Your task to perform on an android device: Do I have any events tomorrow? Image 0: 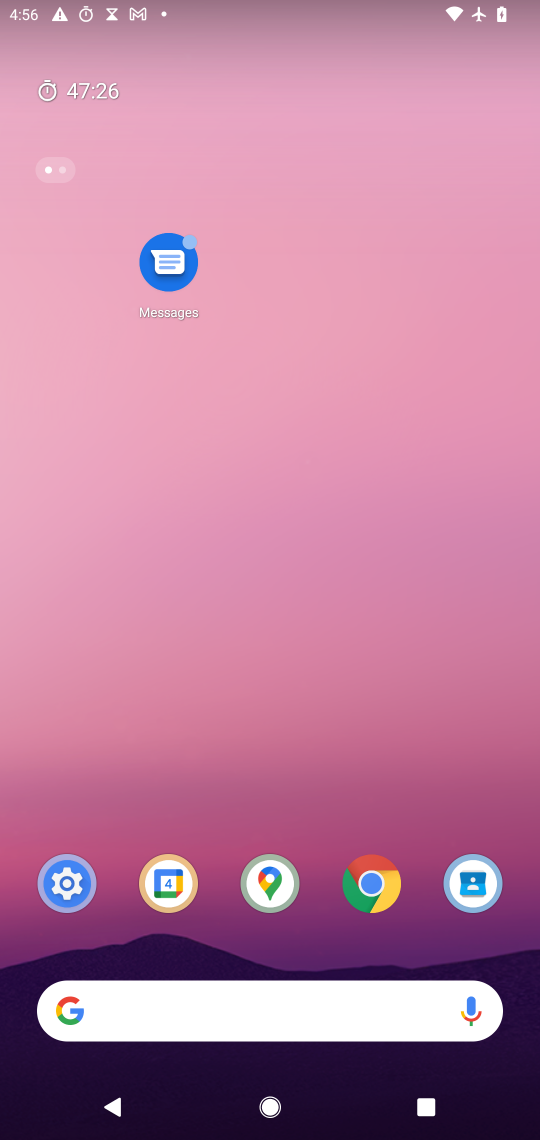
Step 0: drag from (324, 965) to (313, 61)
Your task to perform on an android device: Do I have any events tomorrow? Image 1: 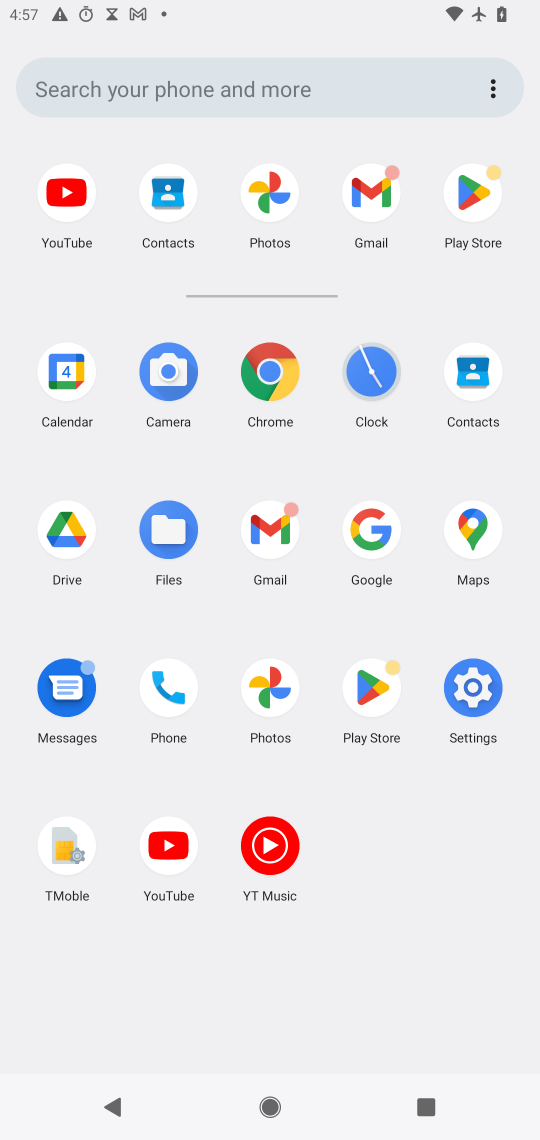
Step 1: click (68, 387)
Your task to perform on an android device: Do I have any events tomorrow? Image 2: 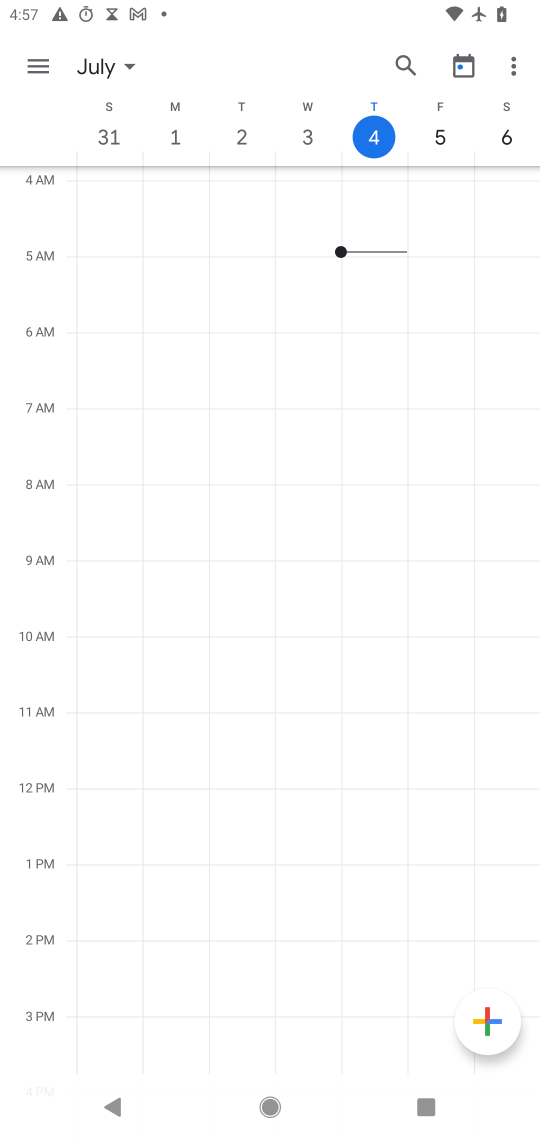
Step 2: click (42, 62)
Your task to perform on an android device: Do I have any events tomorrow? Image 3: 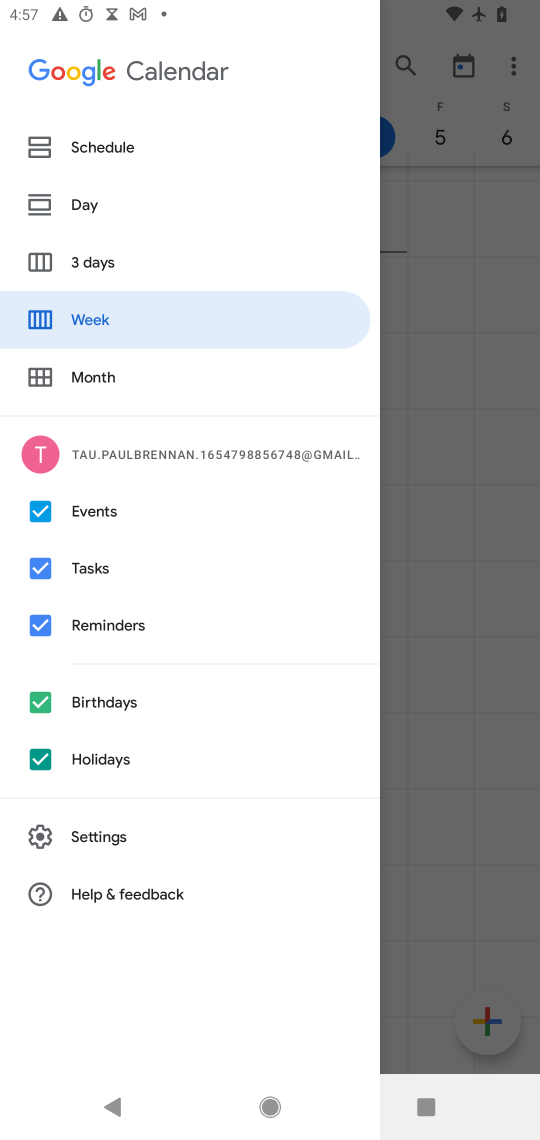
Step 3: click (41, 756)
Your task to perform on an android device: Do I have any events tomorrow? Image 4: 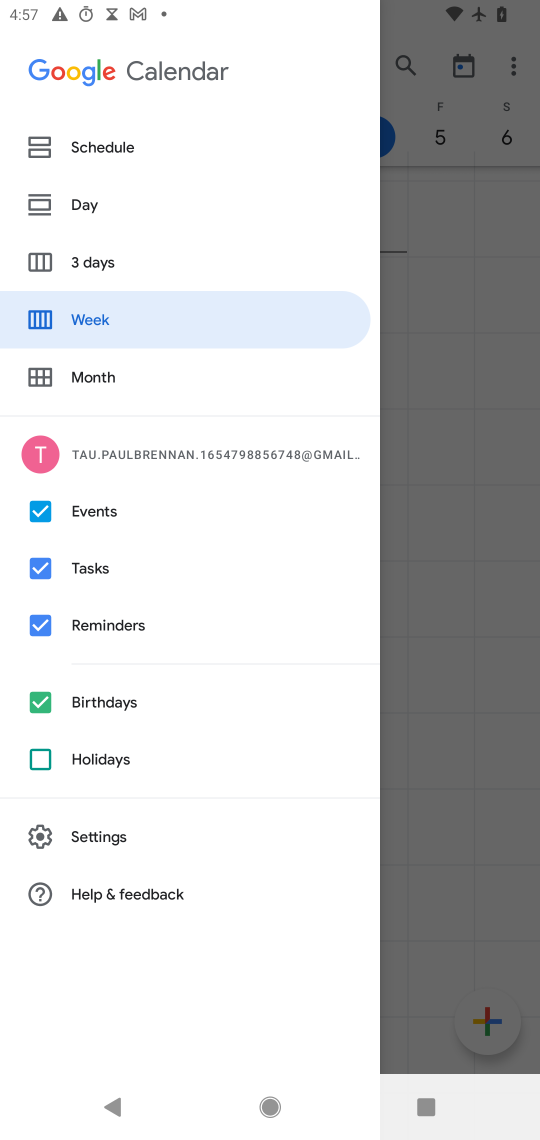
Step 4: click (38, 698)
Your task to perform on an android device: Do I have any events tomorrow? Image 5: 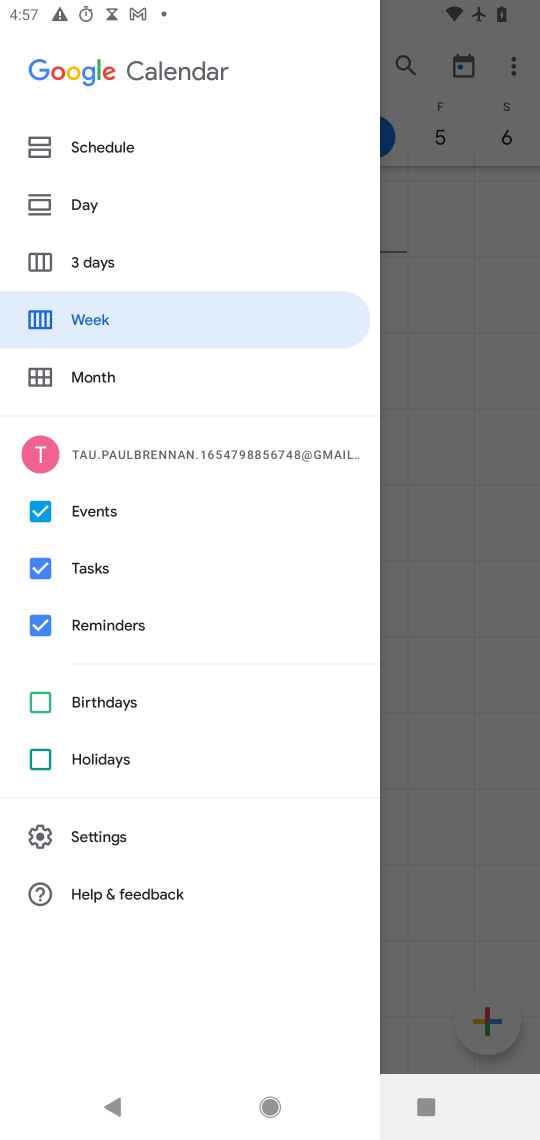
Step 5: click (38, 616)
Your task to perform on an android device: Do I have any events tomorrow? Image 6: 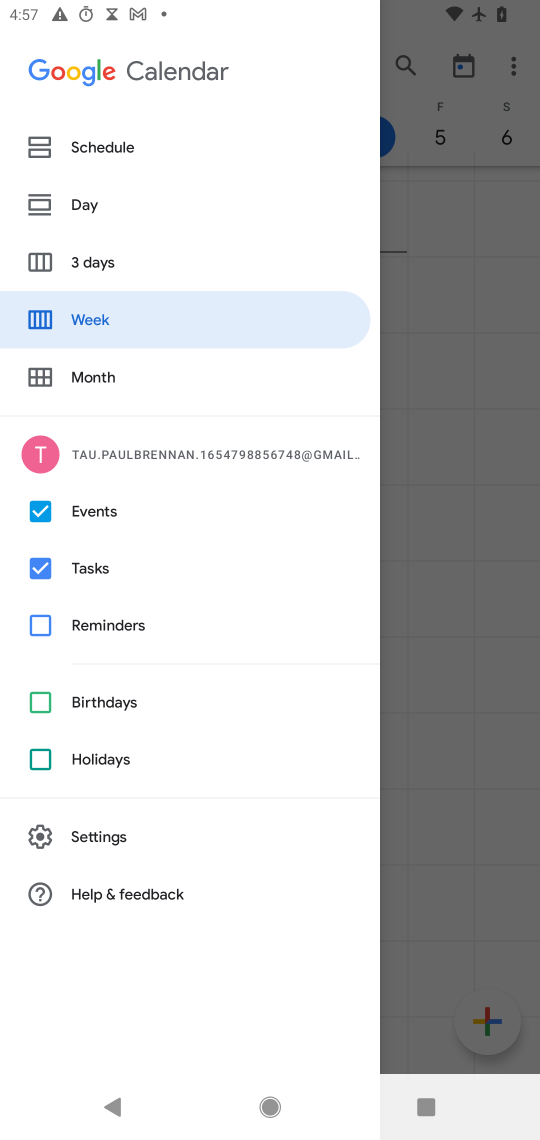
Step 6: click (41, 567)
Your task to perform on an android device: Do I have any events tomorrow? Image 7: 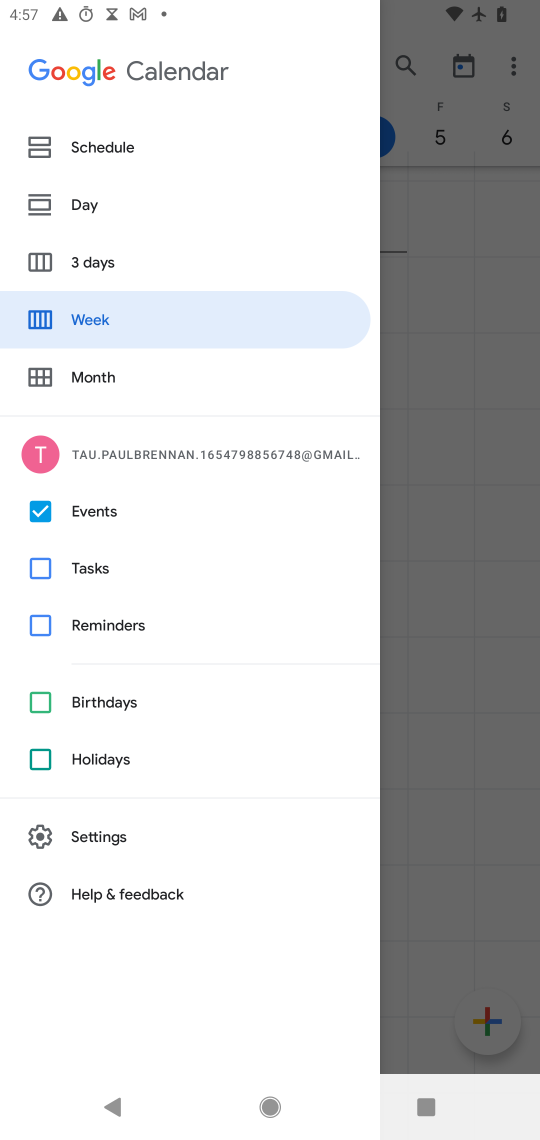
Step 7: click (456, 356)
Your task to perform on an android device: Do I have any events tomorrow? Image 8: 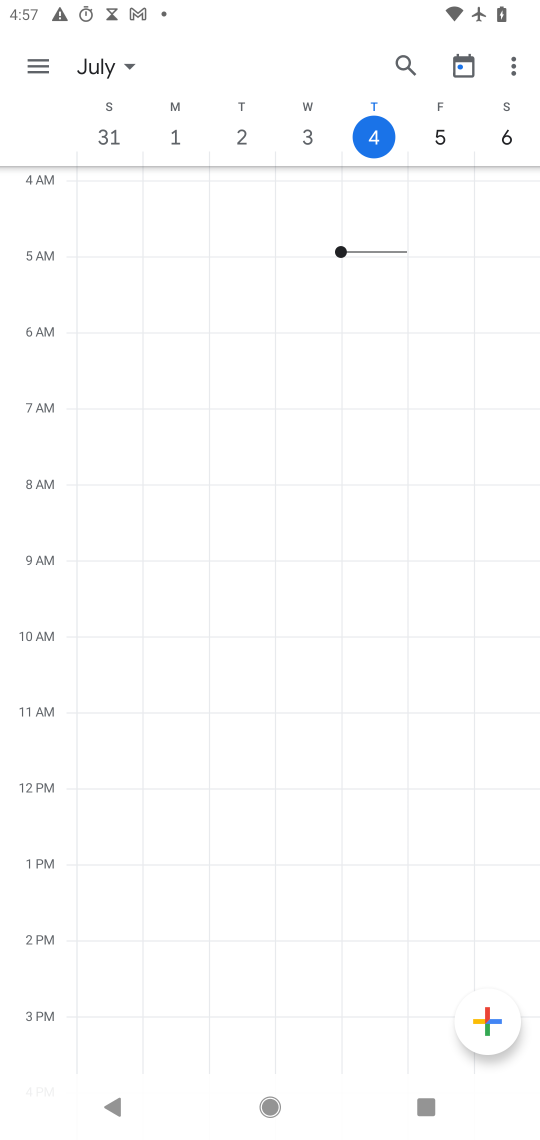
Step 8: click (442, 133)
Your task to perform on an android device: Do I have any events tomorrow? Image 9: 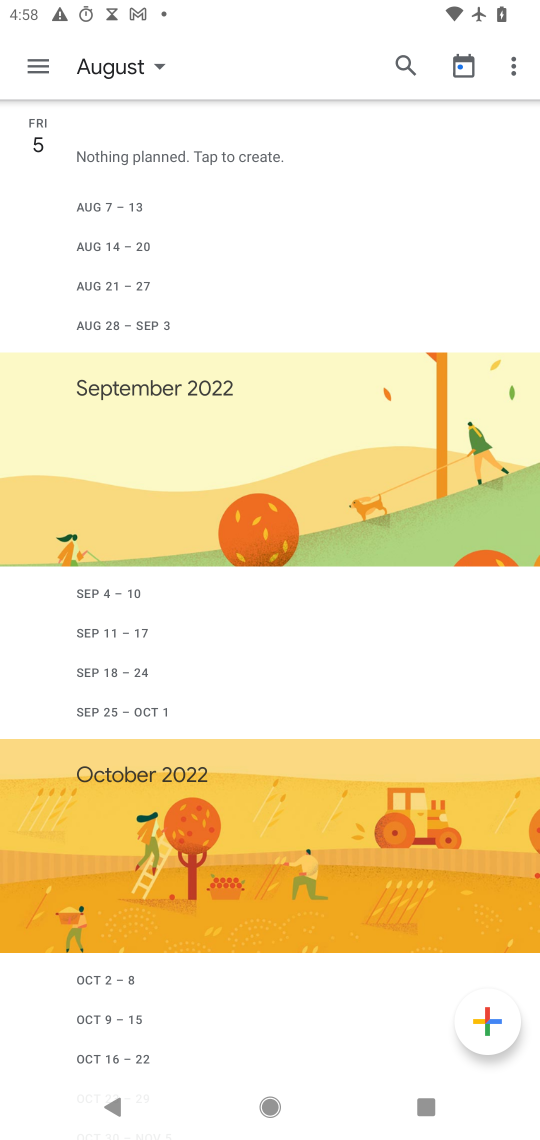
Step 9: task complete